Your task to perform on an android device: Go to CNN.com Image 0: 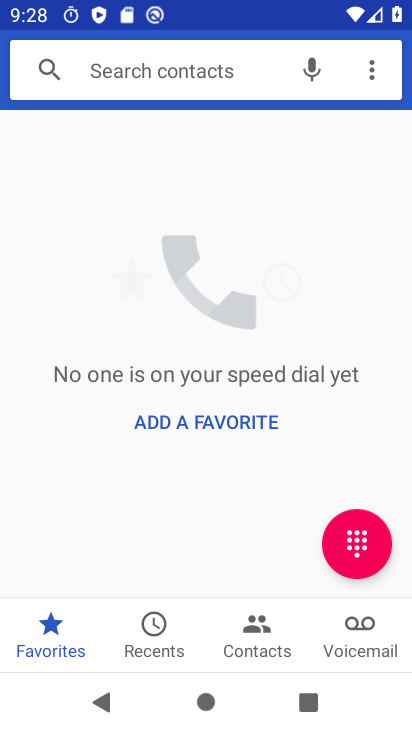
Step 0: press home button
Your task to perform on an android device: Go to CNN.com Image 1: 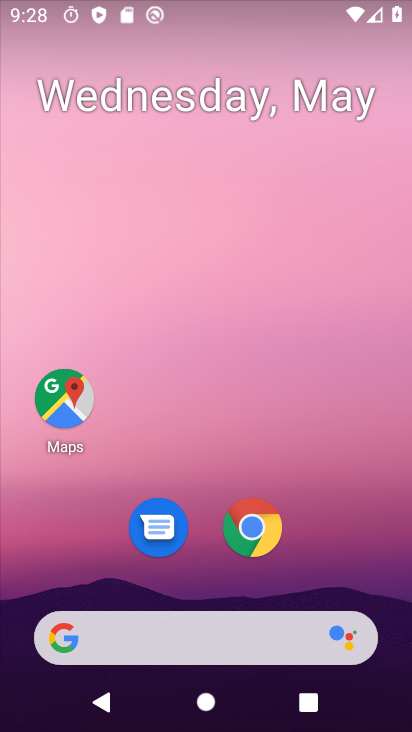
Step 1: click (257, 526)
Your task to perform on an android device: Go to CNN.com Image 2: 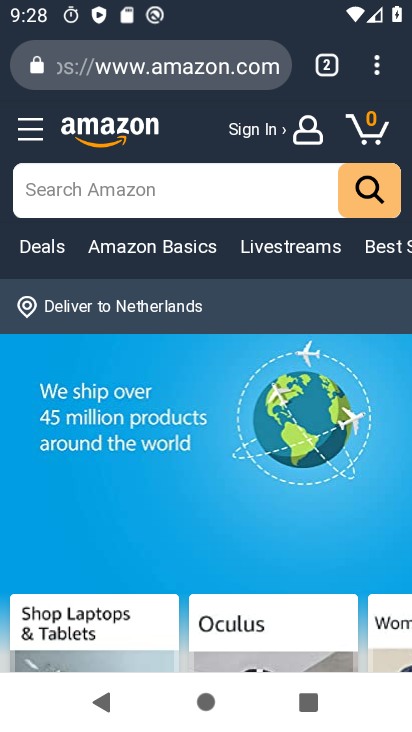
Step 2: drag from (378, 62) to (207, 134)
Your task to perform on an android device: Go to CNN.com Image 3: 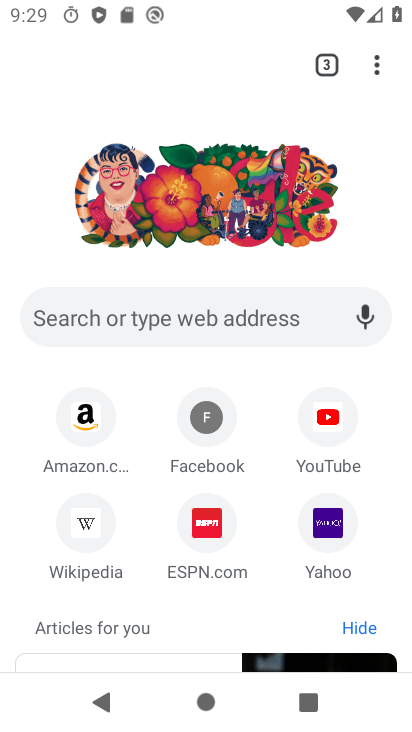
Step 3: click (281, 317)
Your task to perform on an android device: Go to CNN.com Image 4: 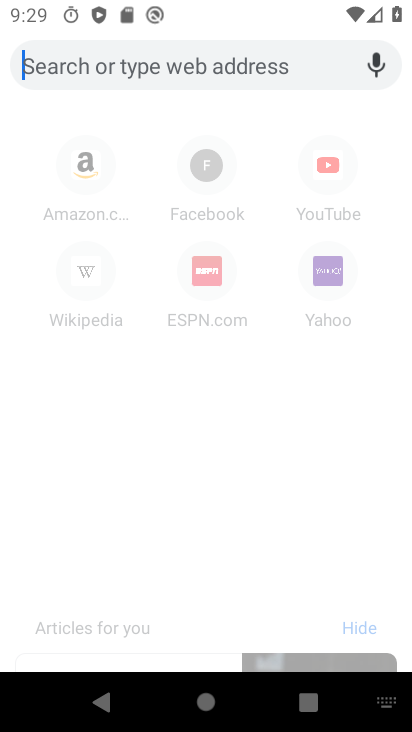
Step 4: type "CNN.com"
Your task to perform on an android device: Go to CNN.com Image 5: 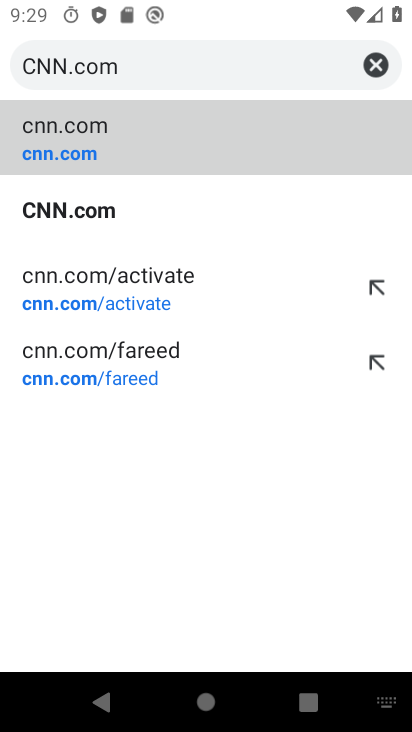
Step 5: click (59, 142)
Your task to perform on an android device: Go to CNN.com Image 6: 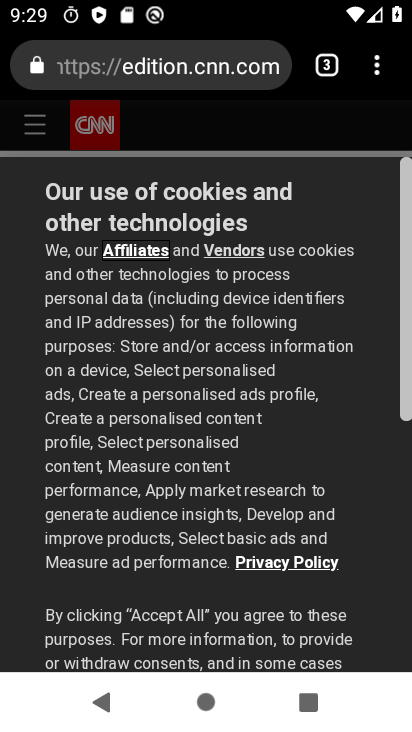
Step 6: task complete